Your task to perform on an android device: open wifi settings Image 0: 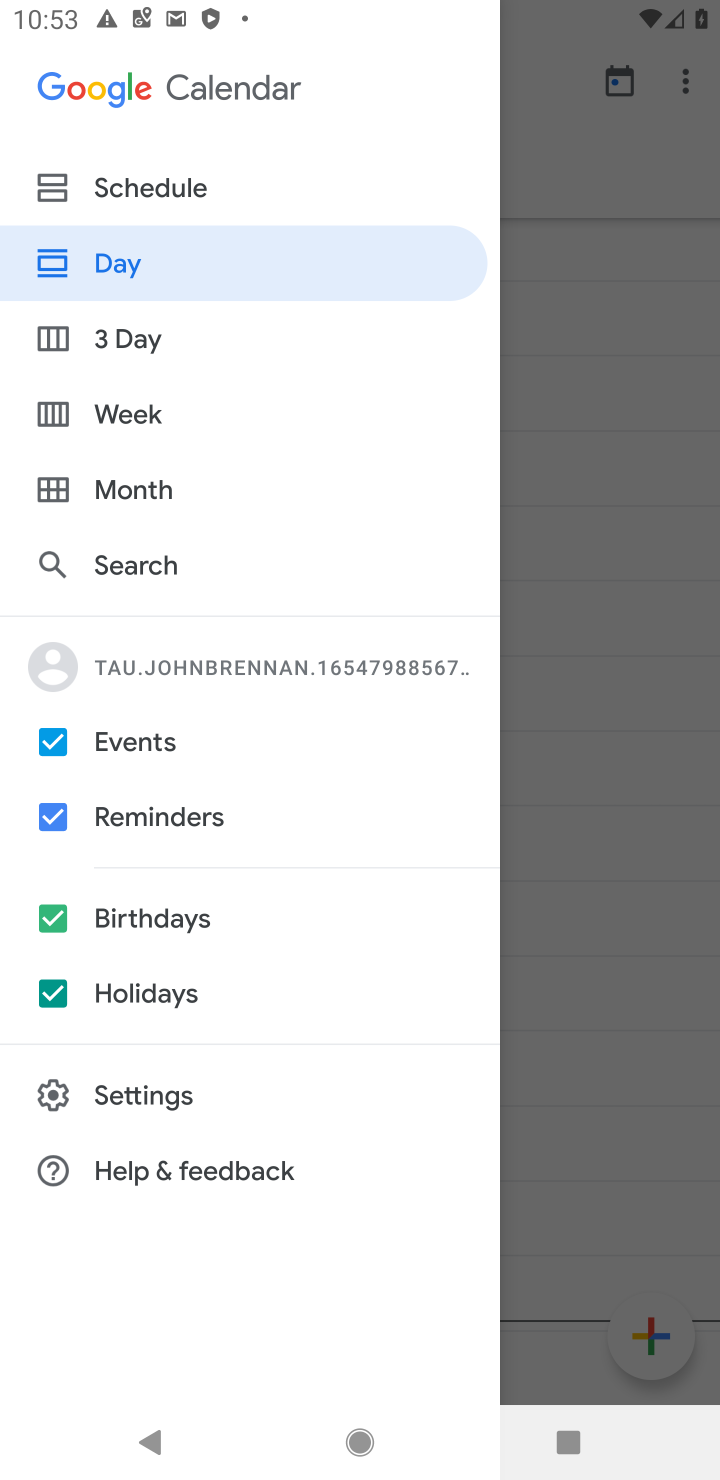
Step 0: click (550, 916)
Your task to perform on an android device: open wifi settings Image 1: 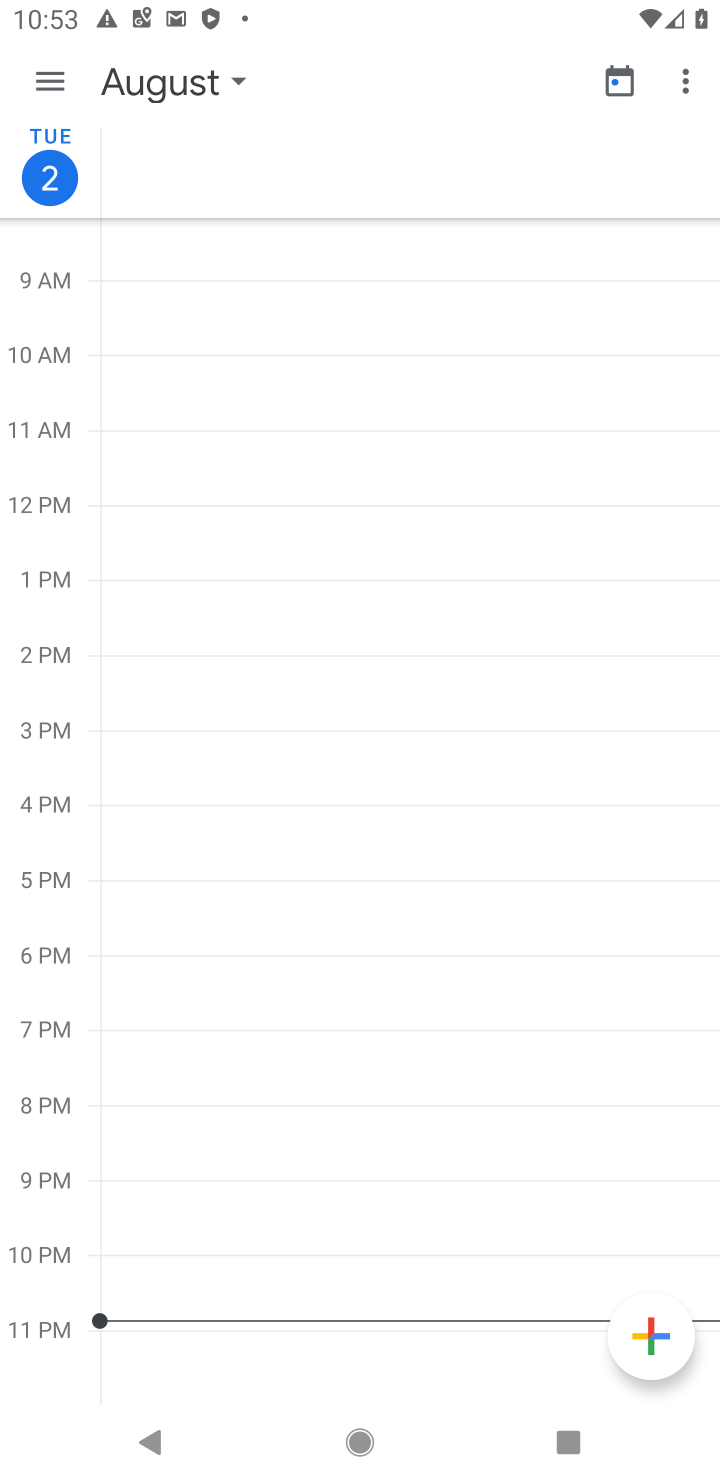
Step 1: press home button
Your task to perform on an android device: open wifi settings Image 2: 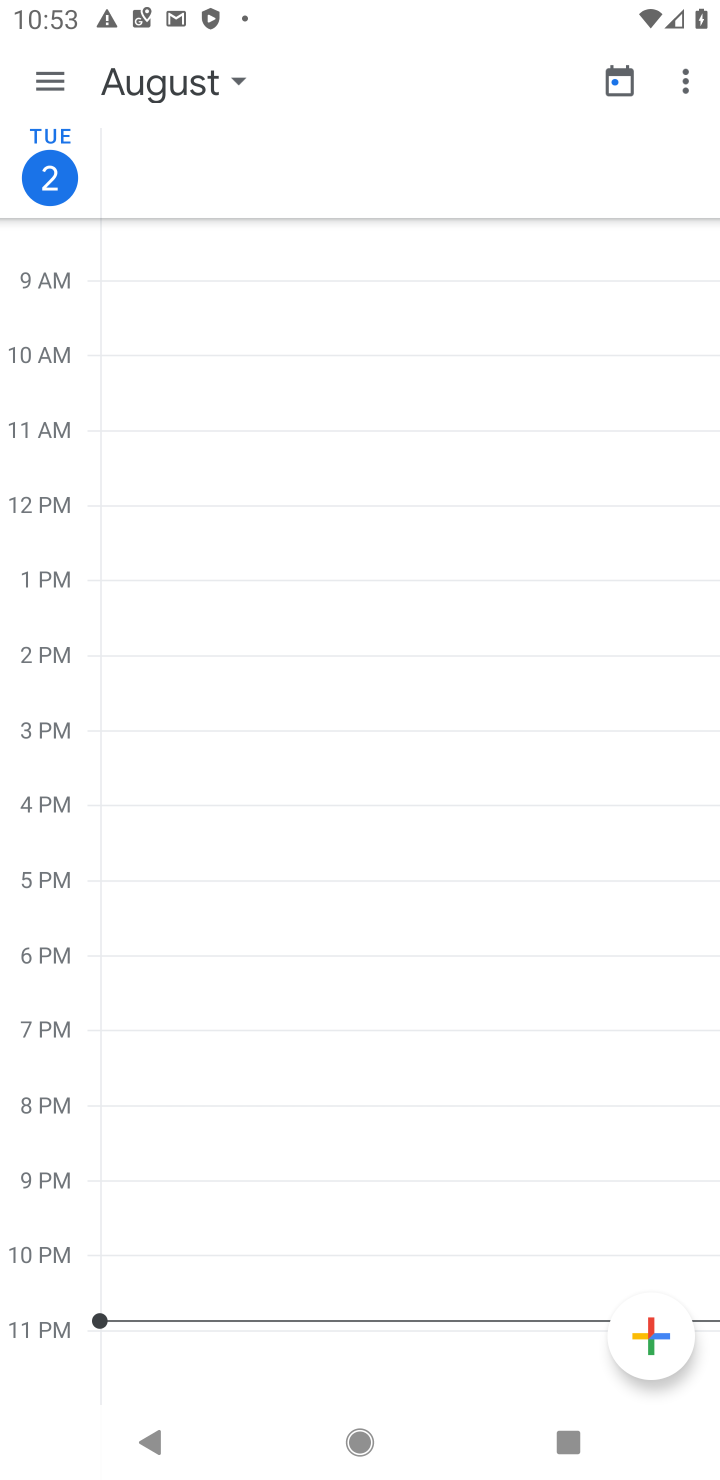
Step 2: drag from (370, 1113) to (491, 302)
Your task to perform on an android device: open wifi settings Image 3: 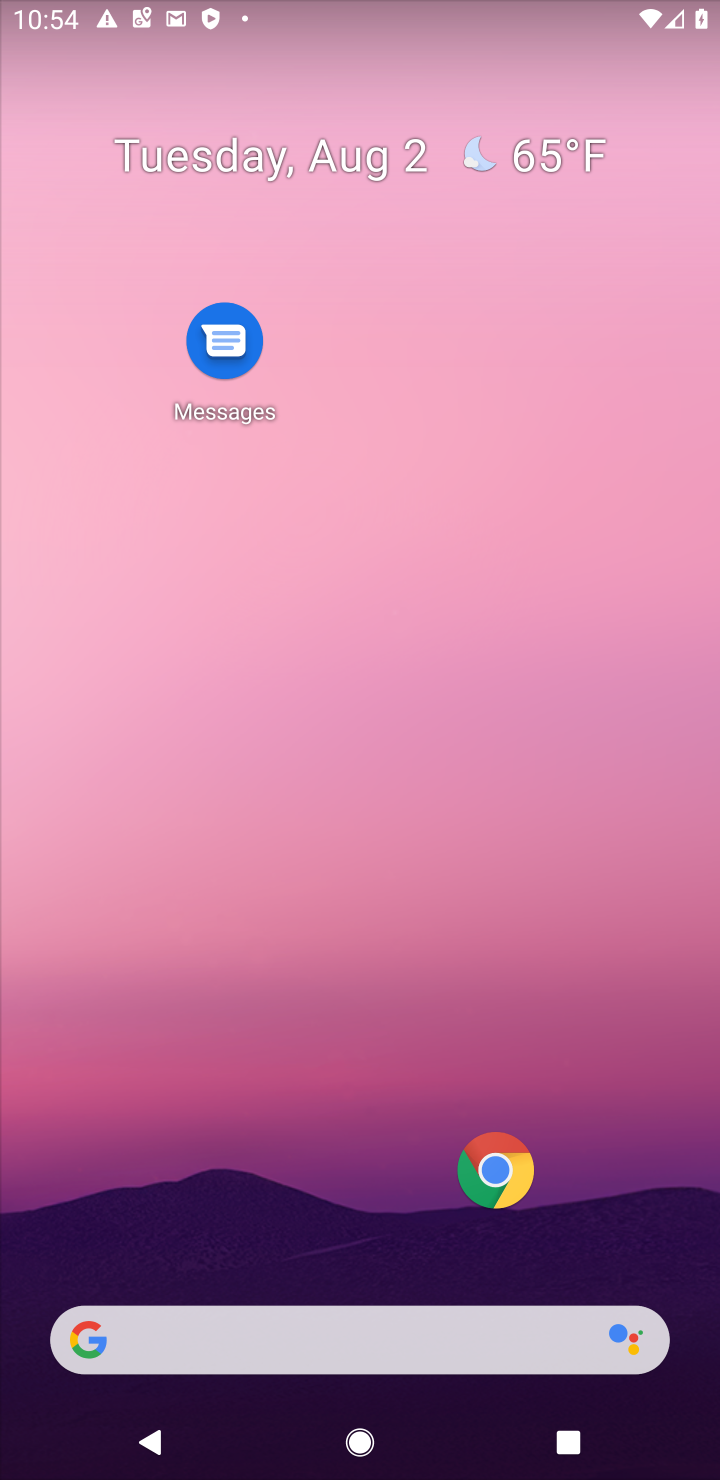
Step 3: drag from (414, 1141) to (475, 344)
Your task to perform on an android device: open wifi settings Image 4: 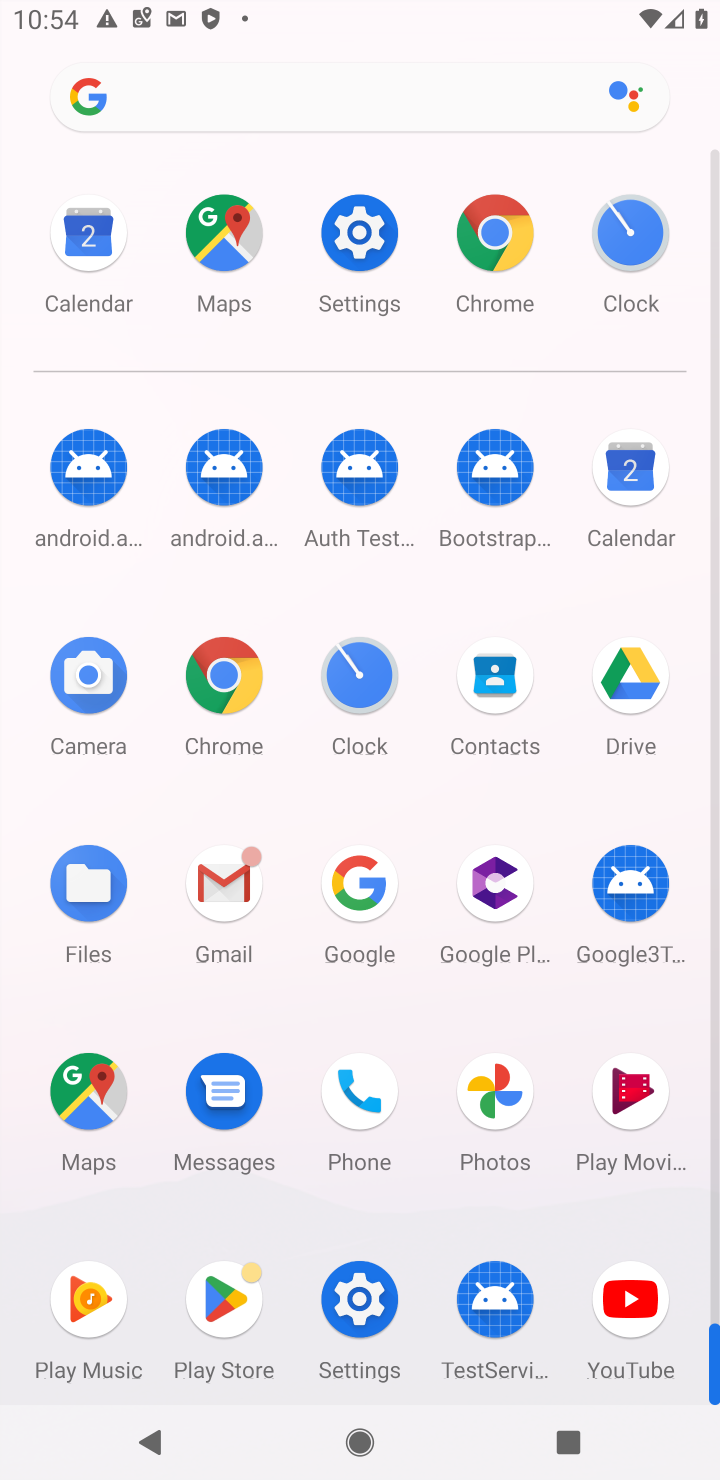
Step 4: click (369, 247)
Your task to perform on an android device: open wifi settings Image 5: 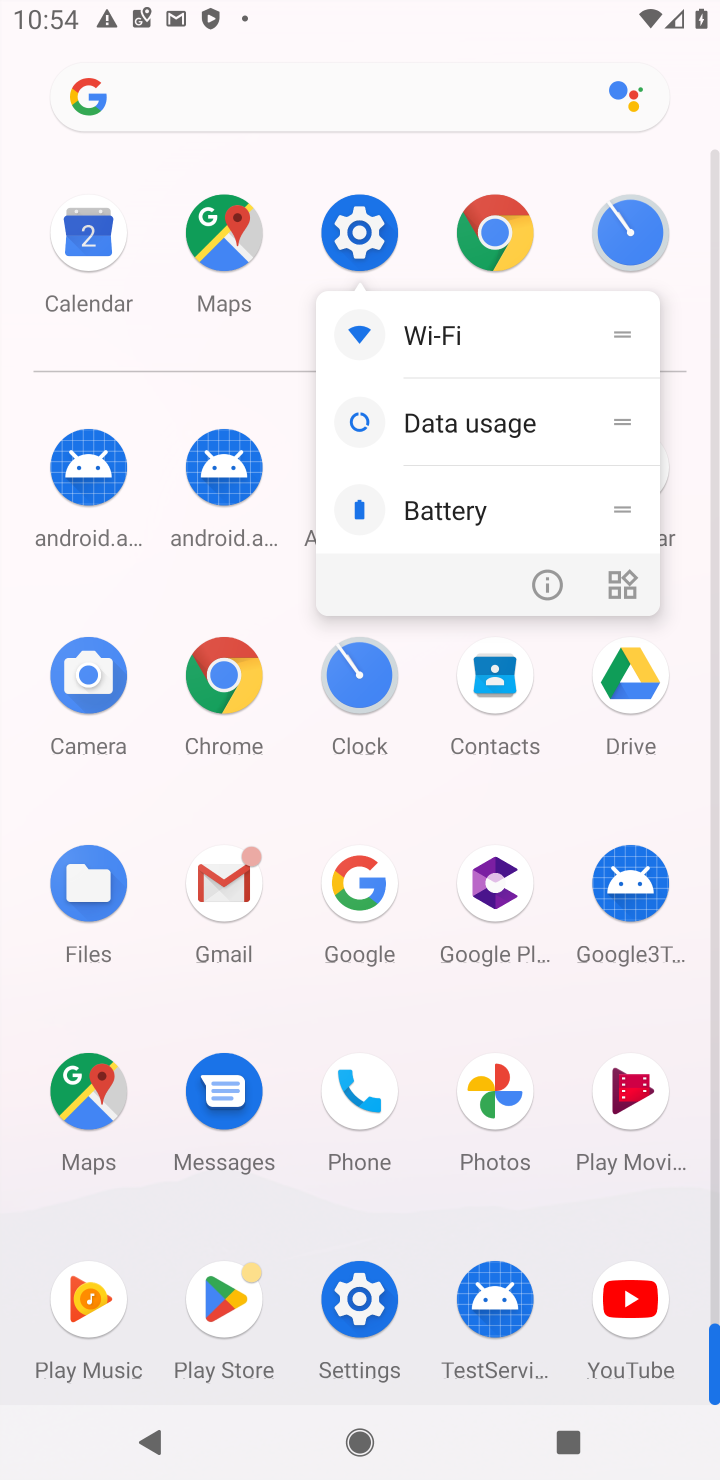
Step 5: click (386, 335)
Your task to perform on an android device: open wifi settings Image 6: 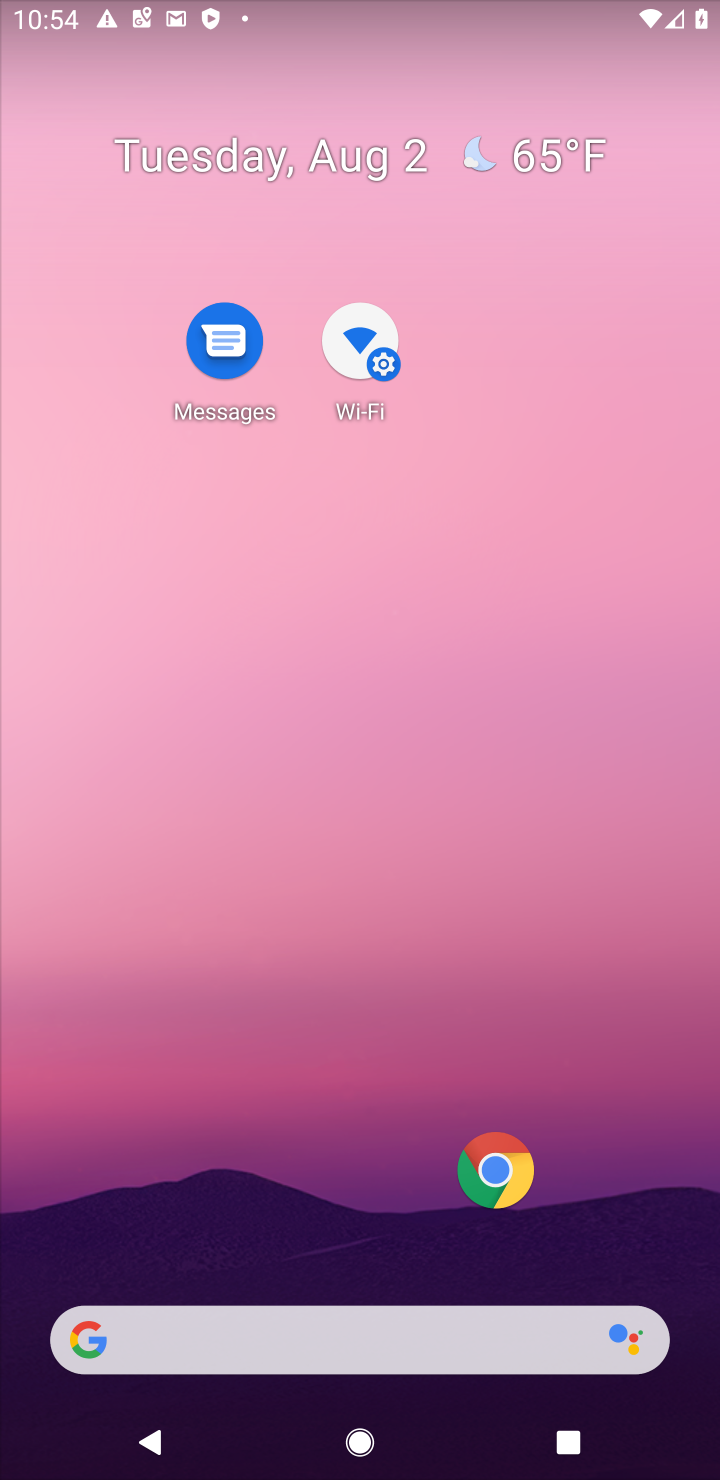
Step 6: click (357, 350)
Your task to perform on an android device: open wifi settings Image 7: 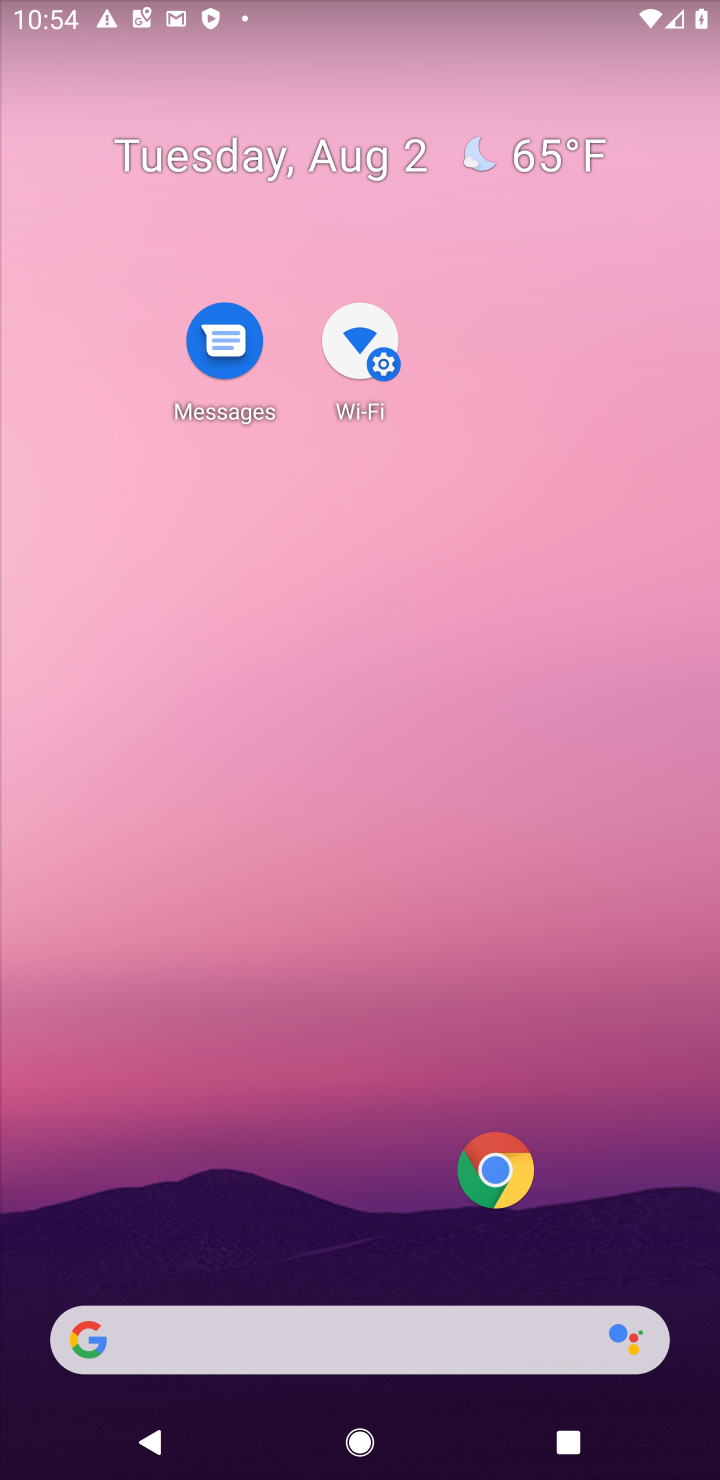
Step 7: drag from (387, 565) to (506, 69)
Your task to perform on an android device: open wifi settings Image 8: 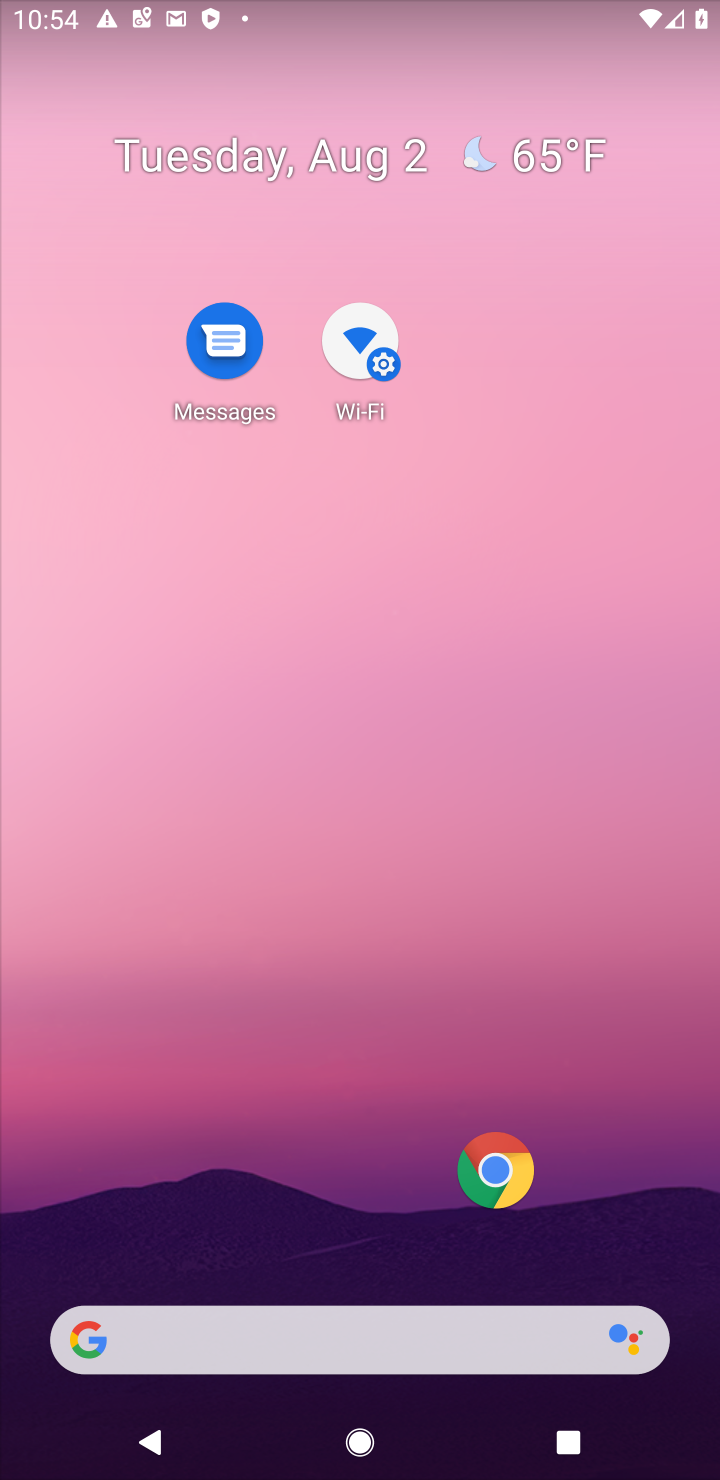
Step 8: drag from (376, 956) to (460, 61)
Your task to perform on an android device: open wifi settings Image 9: 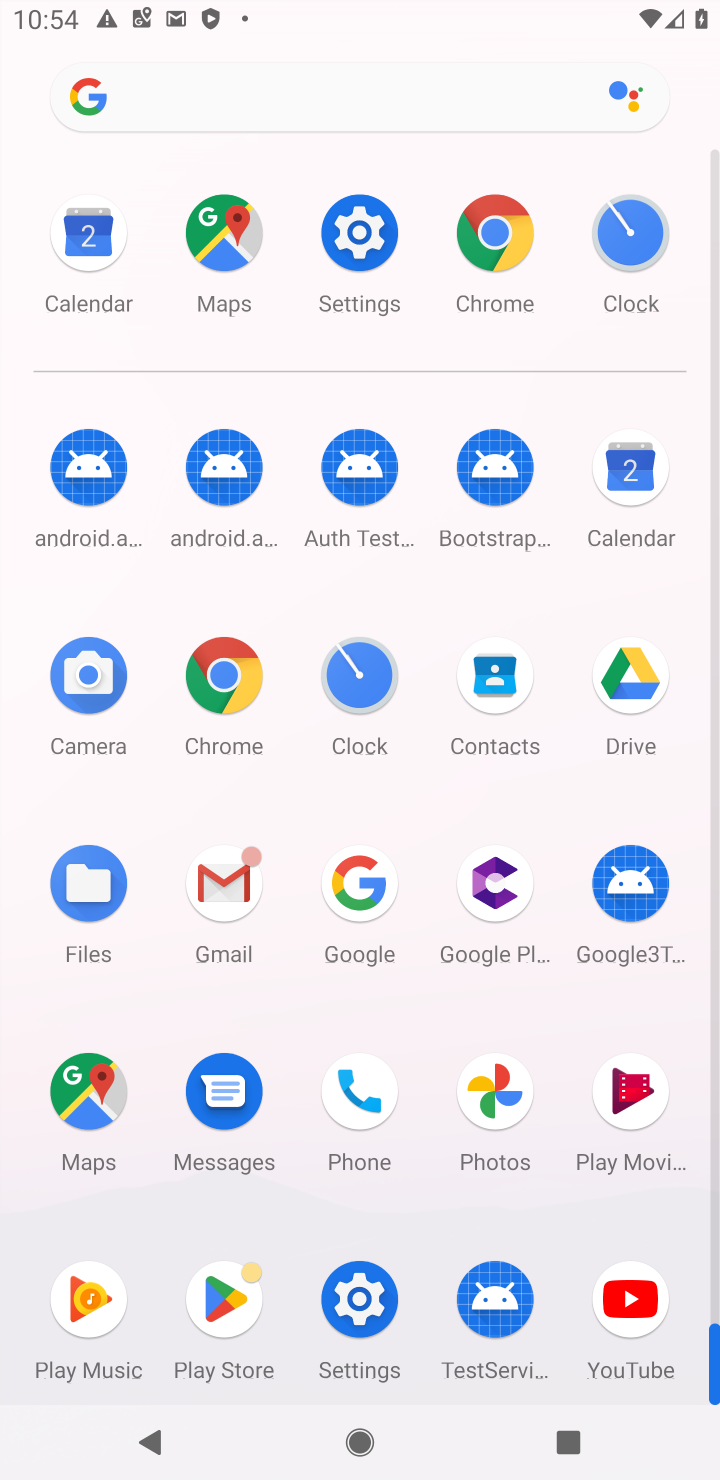
Step 9: click (343, 237)
Your task to perform on an android device: open wifi settings Image 10: 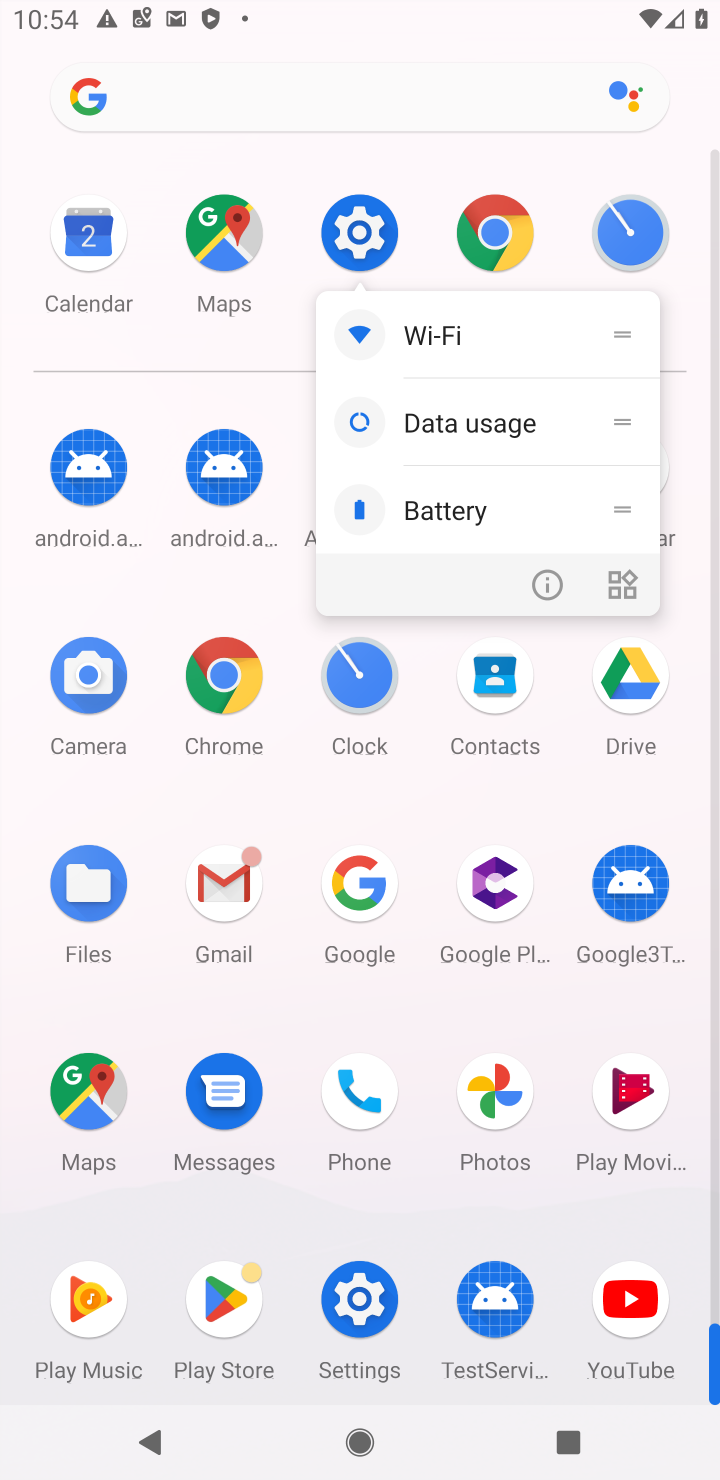
Step 10: click (547, 578)
Your task to perform on an android device: open wifi settings Image 11: 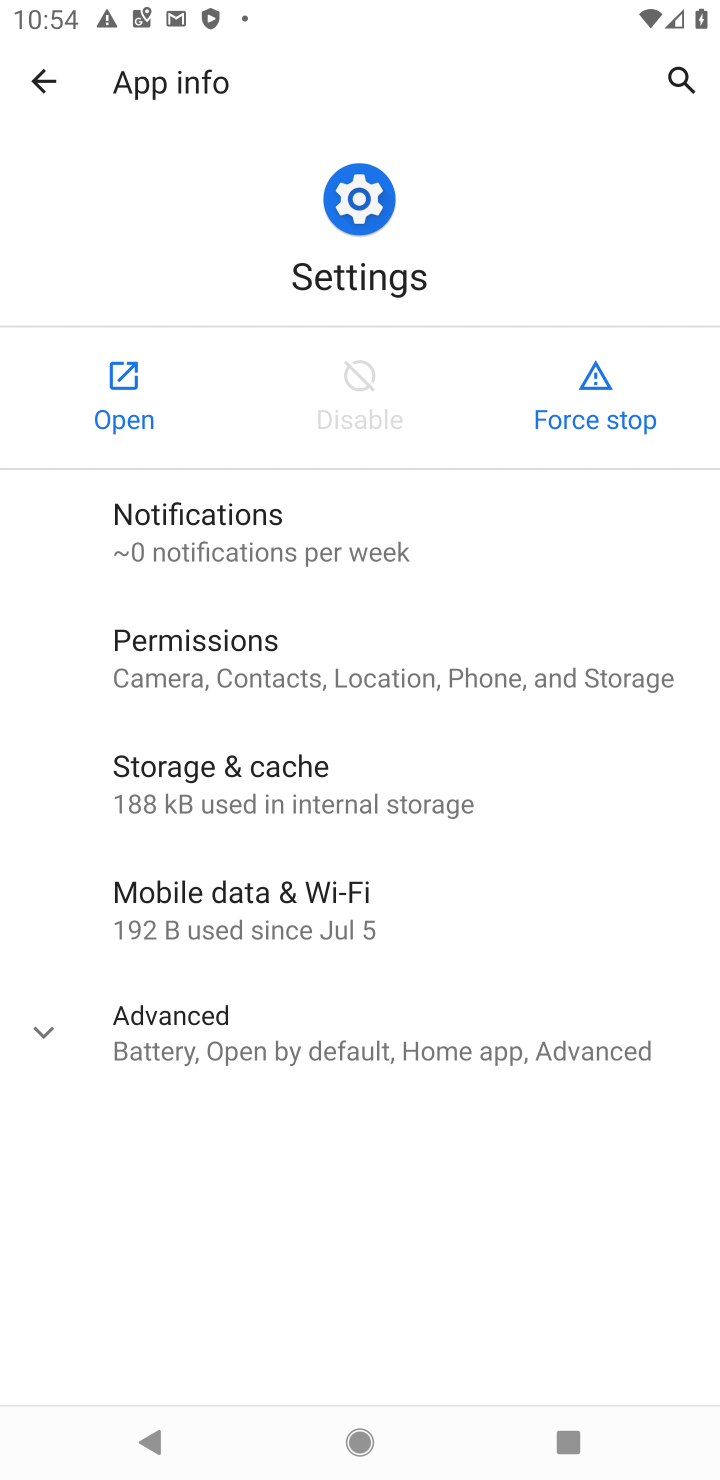
Step 11: click (167, 392)
Your task to perform on an android device: open wifi settings Image 12: 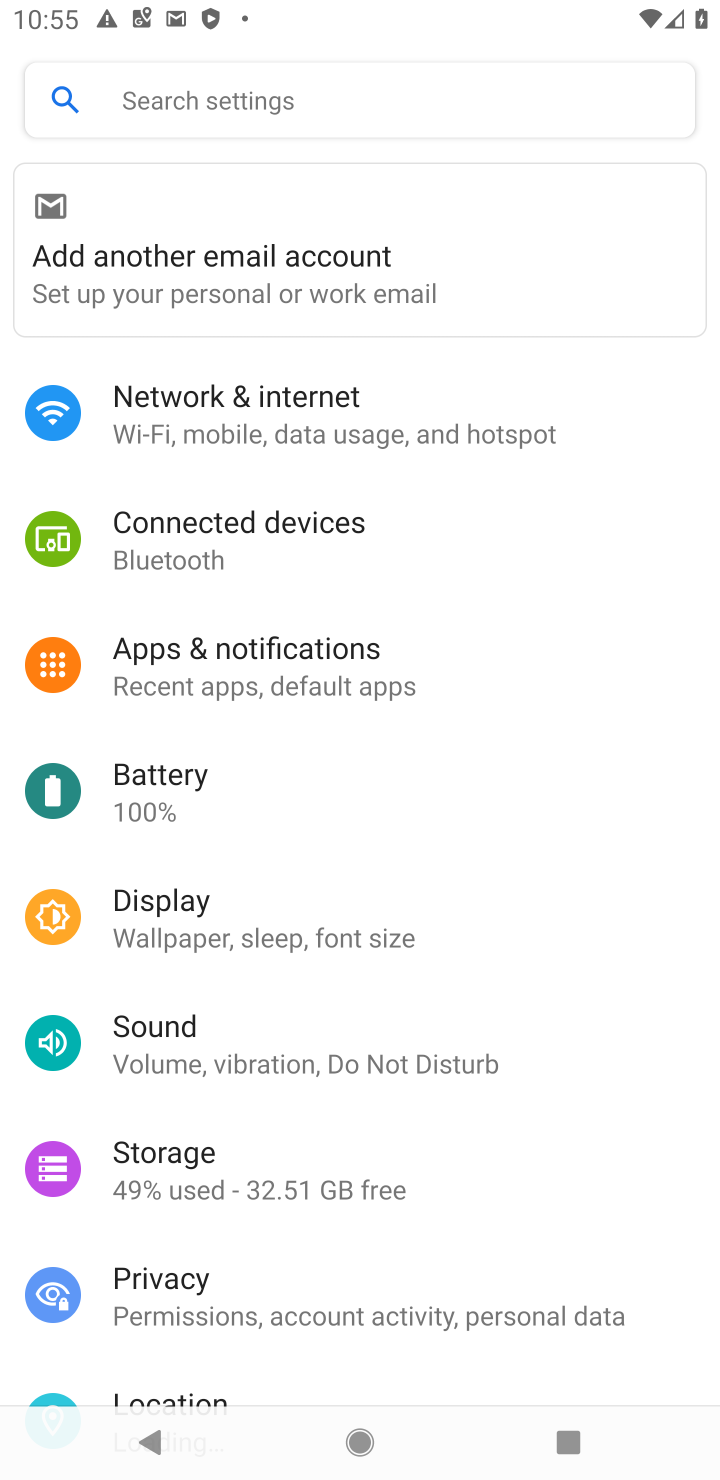
Step 12: click (367, 424)
Your task to perform on an android device: open wifi settings Image 13: 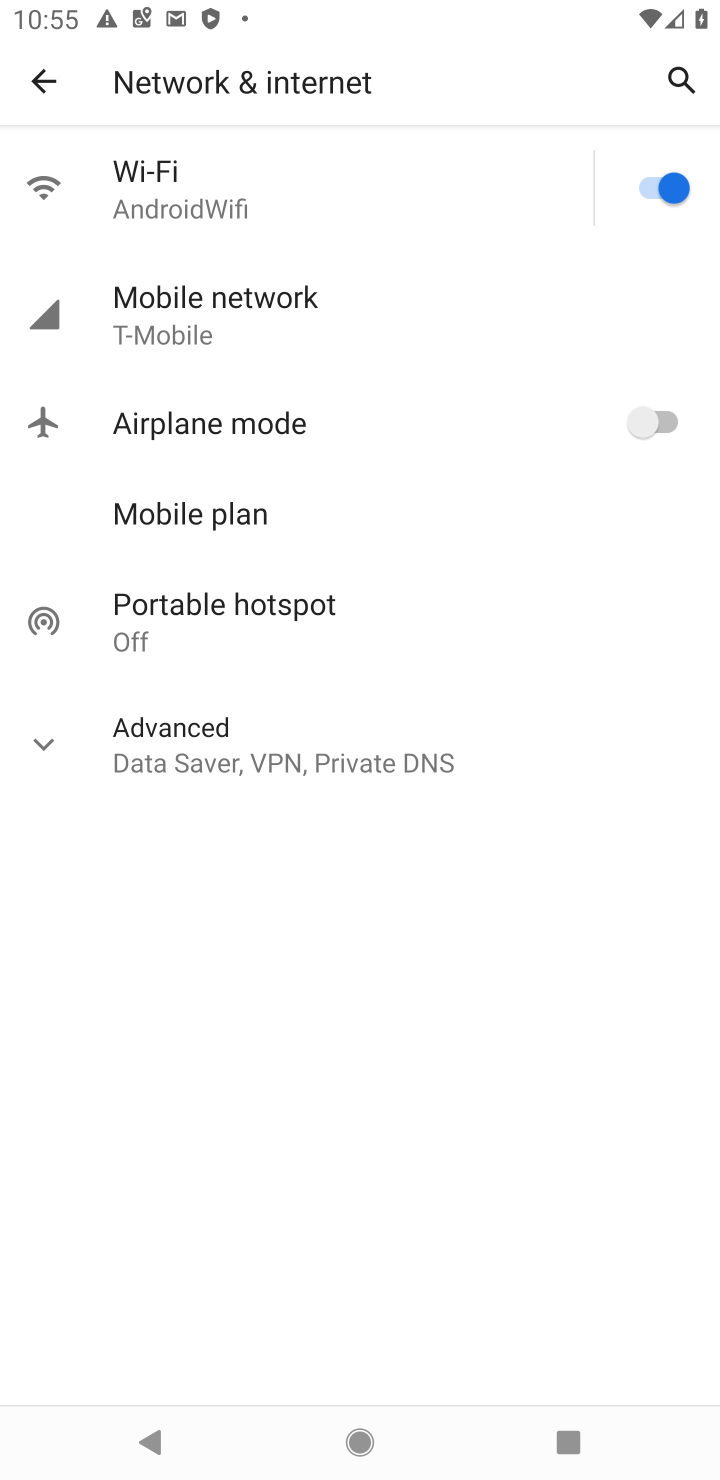
Step 13: click (490, 194)
Your task to perform on an android device: open wifi settings Image 14: 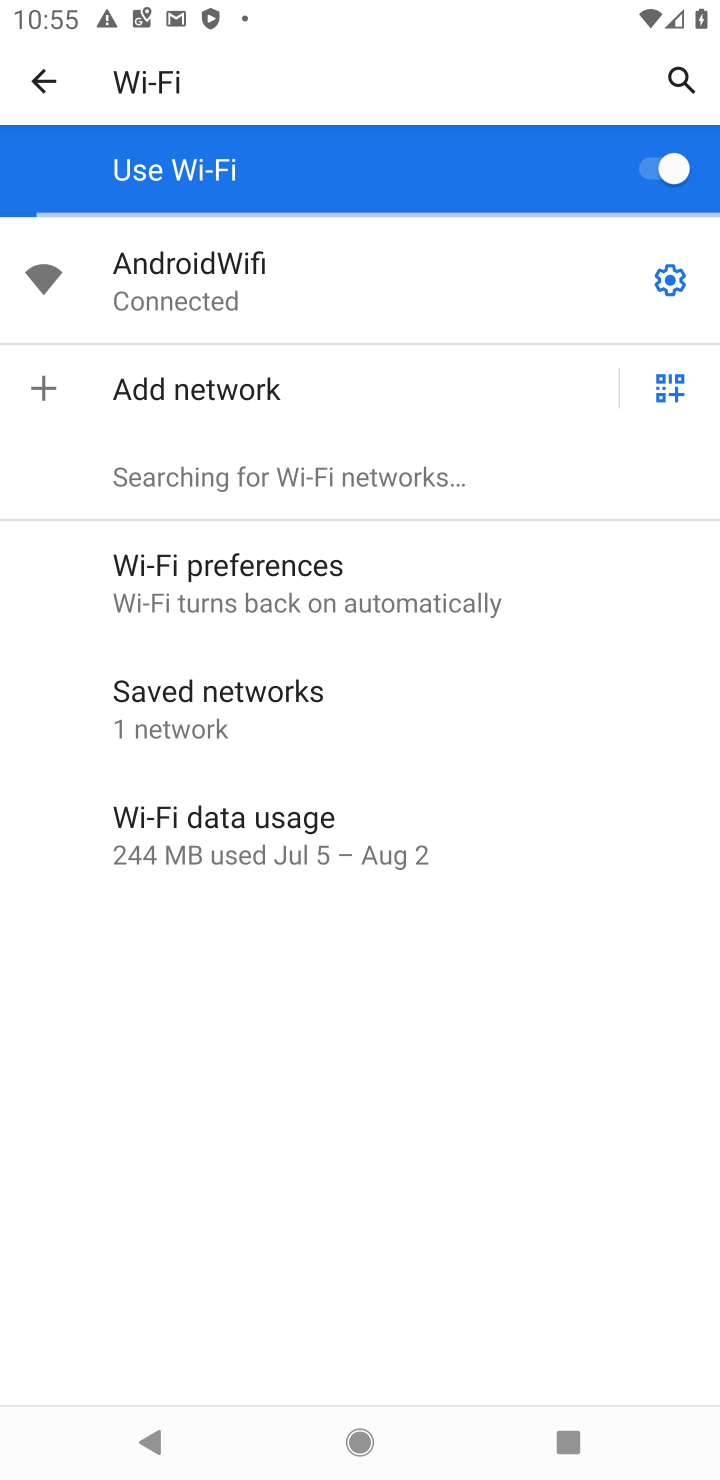
Step 14: click (653, 267)
Your task to perform on an android device: open wifi settings Image 15: 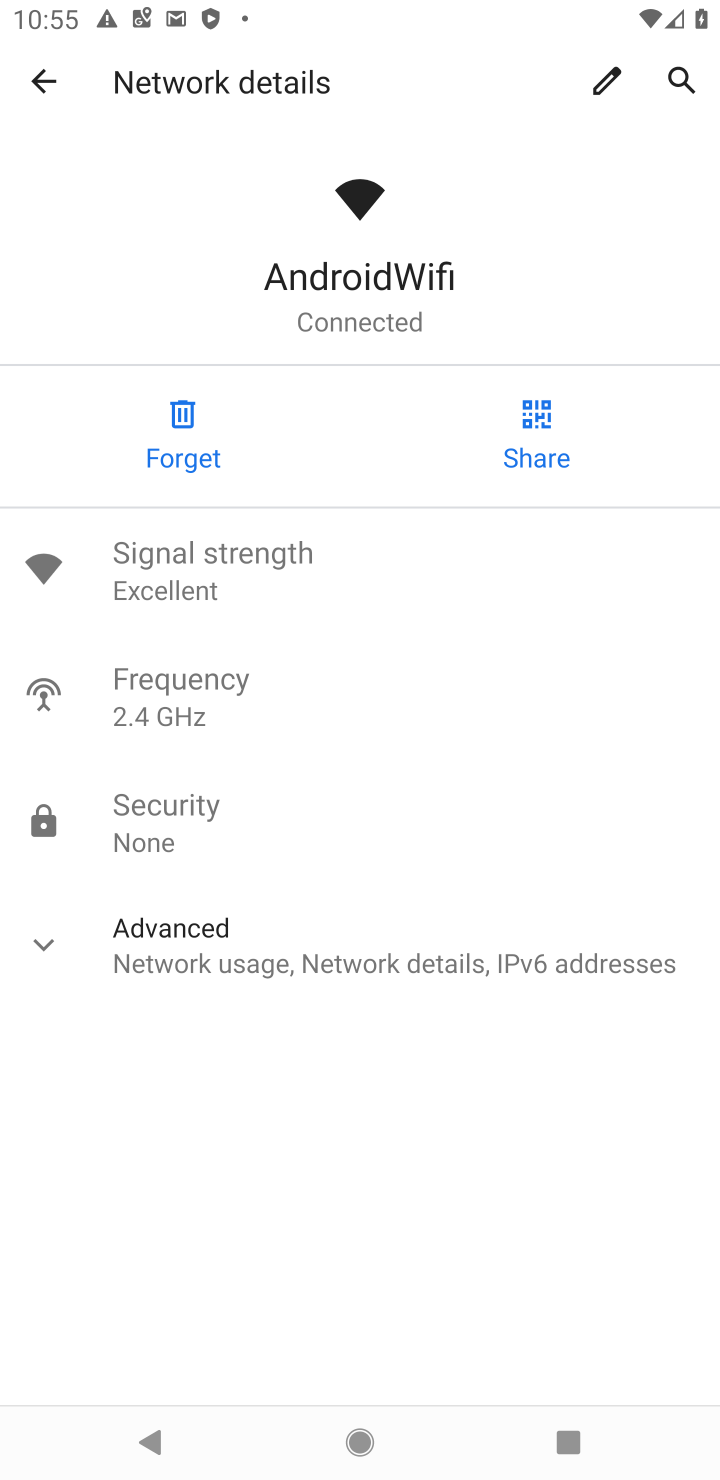
Step 15: task complete